Your task to perform on an android device: Open eBay Image 0: 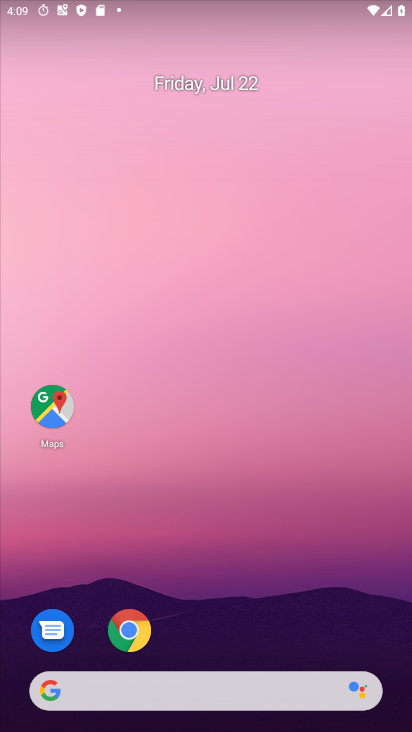
Step 0: drag from (288, 705) to (242, 30)
Your task to perform on an android device: Open eBay Image 1: 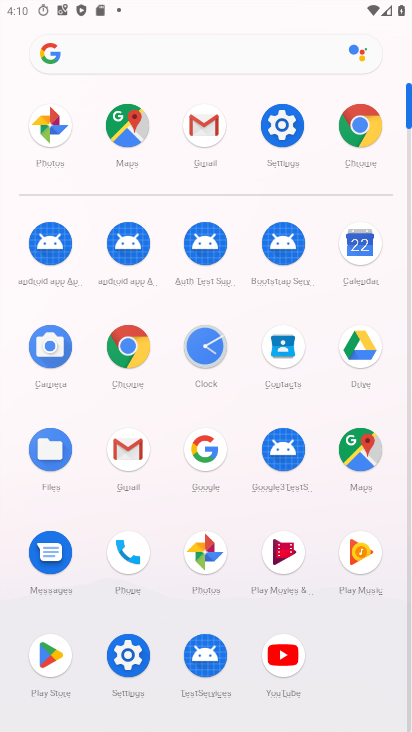
Step 1: click (114, 350)
Your task to perform on an android device: Open eBay Image 2: 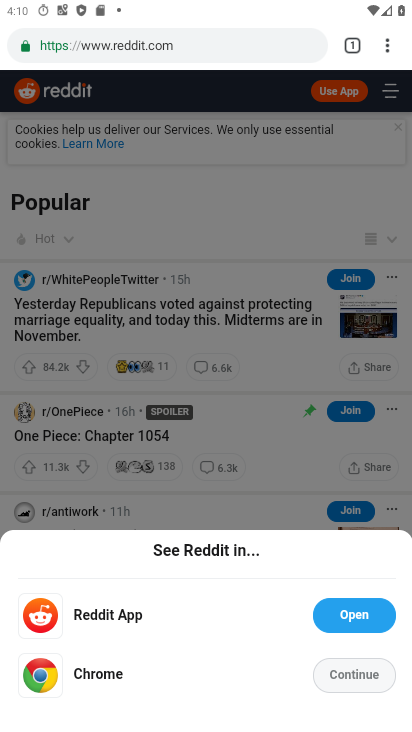
Step 2: drag from (391, 48) to (236, 84)
Your task to perform on an android device: Open eBay Image 3: 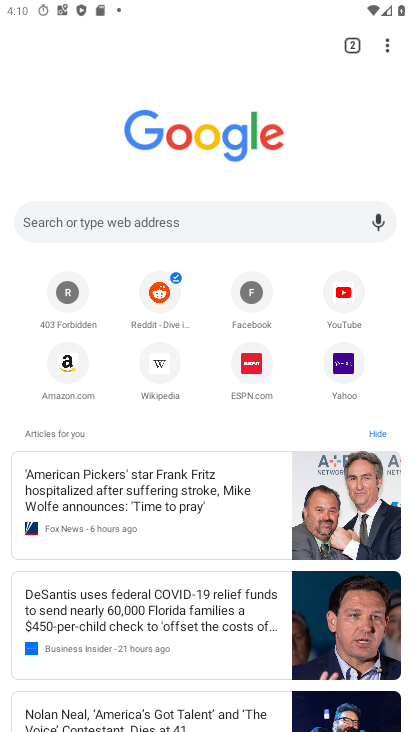
Step 3: click (229, 216)
Your task to perform on an android device: Open eBay Image 4: 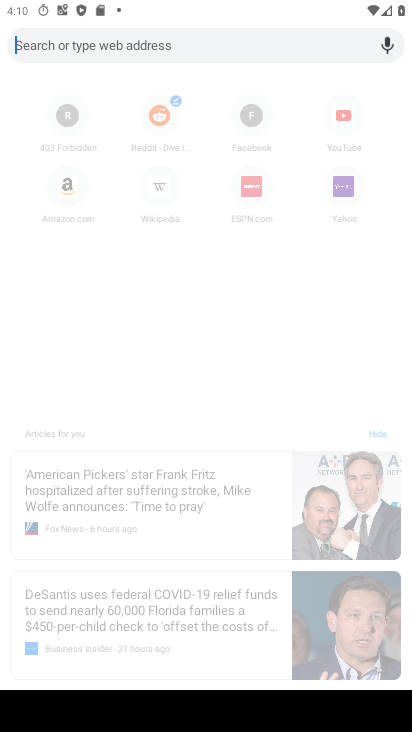
Step 4: type "ebay"
Your task to perform on an android device: Open eBay Image 5: 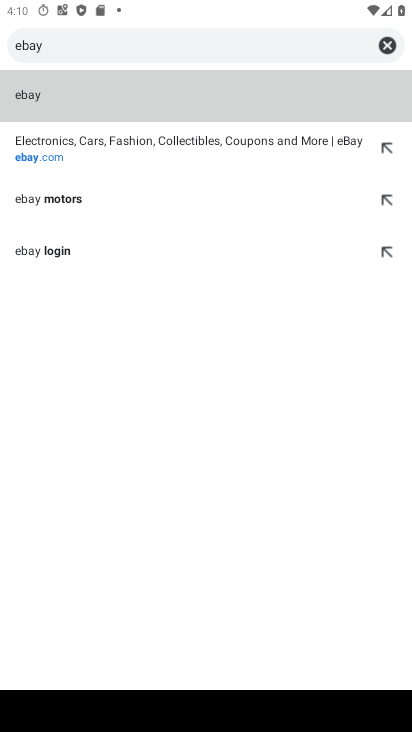
Step 5: click (65, 154)
Your task to perform on an android device: Open eBay Image 6: 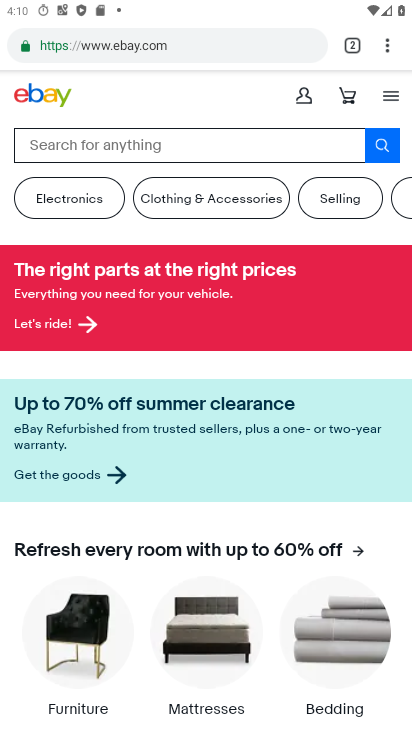
Step 6: task complete